Your task to perform on an android device: What's the weather? Image 0: 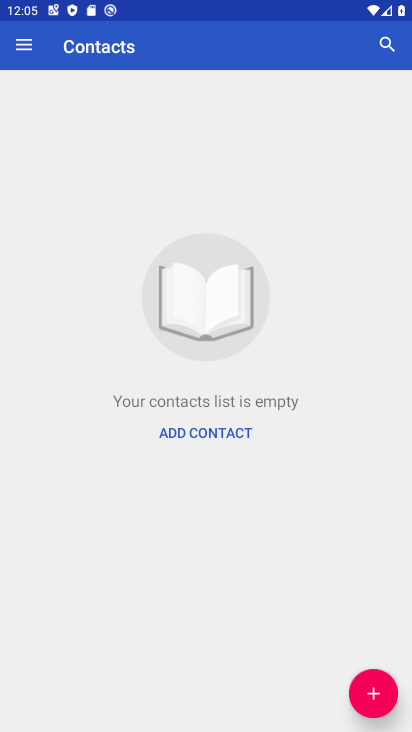
Step 0: press home button
Your task to perform on an android device: What's the weather? Image 1: 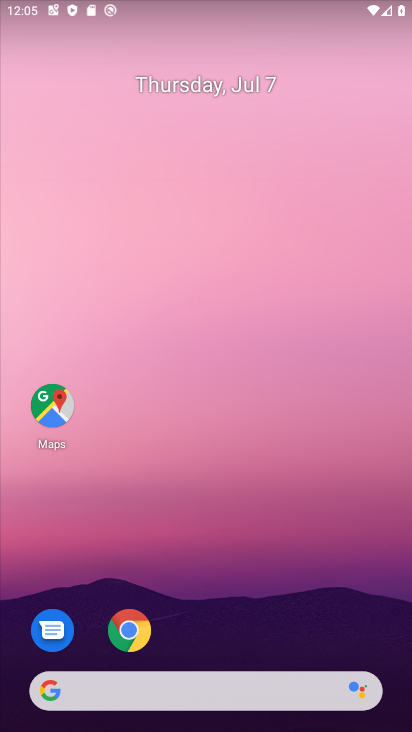
Step 1: click (257, 692)
Your task to perform on an android device: What's the weather? Image 2: 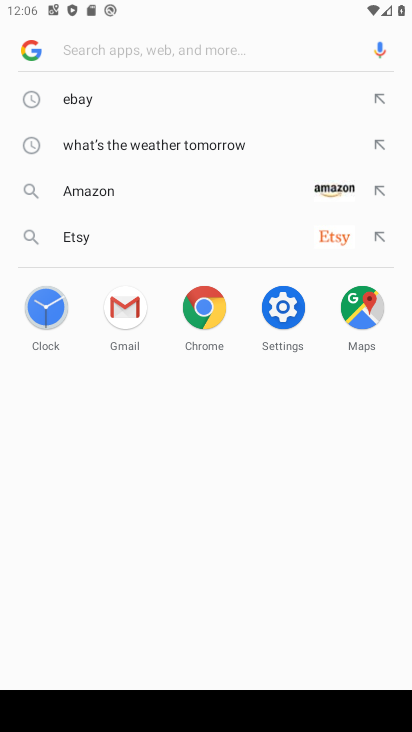
Step 2: click (138, 148)
Your task to perform on an android device: What's the weather? Image 3: 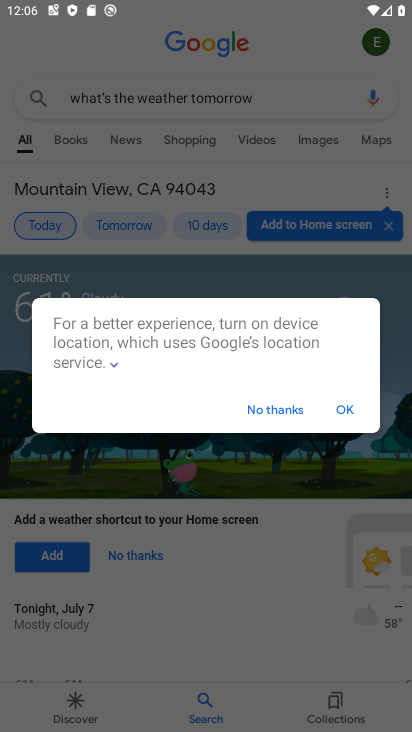
Step 3: click (342, 406)
Your task to perform on an android device: What's the weather? Image 4: 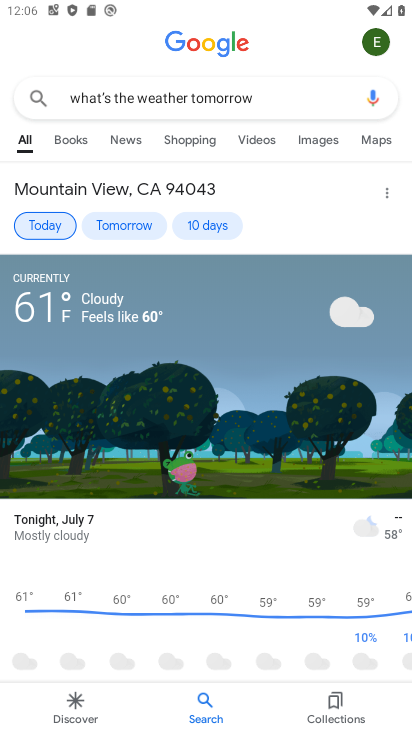
Step 4: task complete